Your task to perform on an android device: Find coffee shops on Maps Image 0: 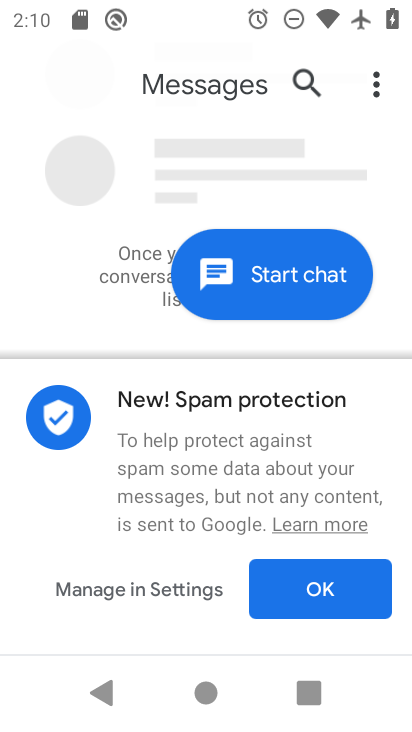
Step 0: press home button
Your task to perform on an android device: Find coffee shops on Maps Image 1: 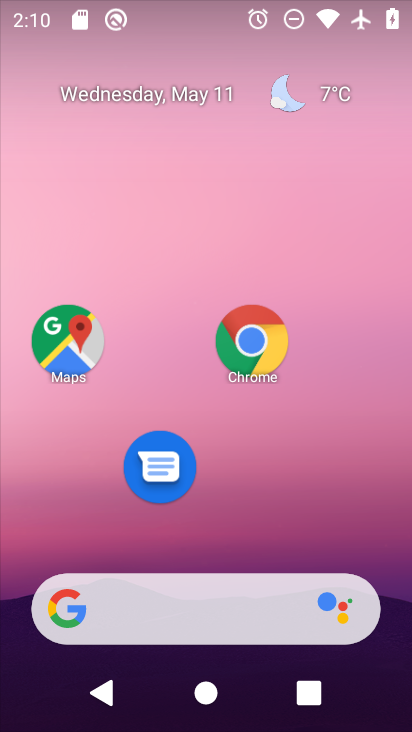
Step 1: click (77, 356)
Your task to perform on an android device: Find coffee shops on Maps Image 2: 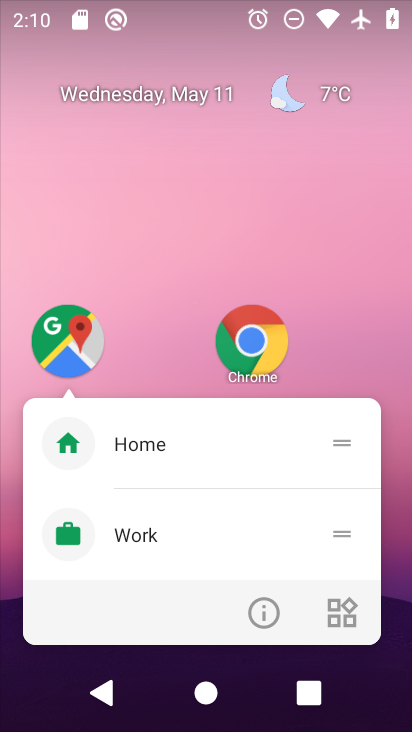
Step 2: click (73, 350)
Your task to perform on an android device: Find coffee shops on Maps Image 3: 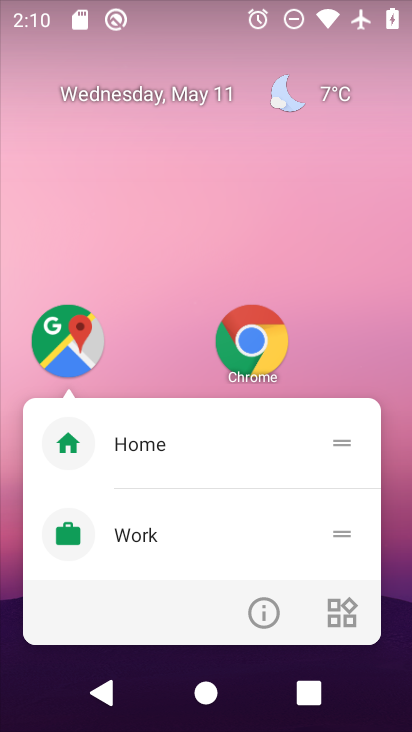
Step 3: click (66, 345)
Your task to perform on an android device: Find coffee shops on Maps Image 4: 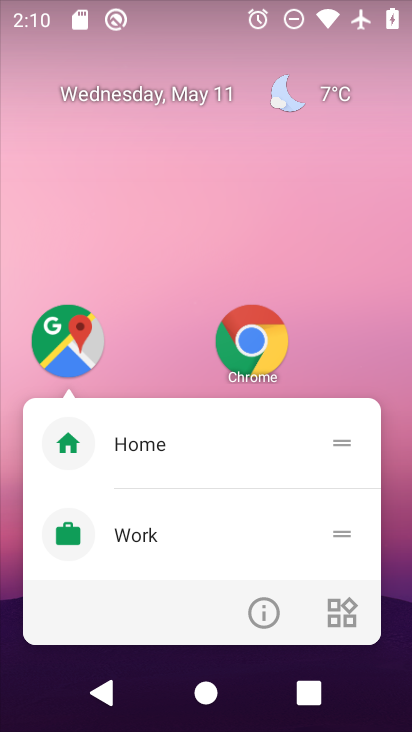
Step 4: click (59, 360)
Your task to perform on an android device: Find coffee shops on Maps Image 5: 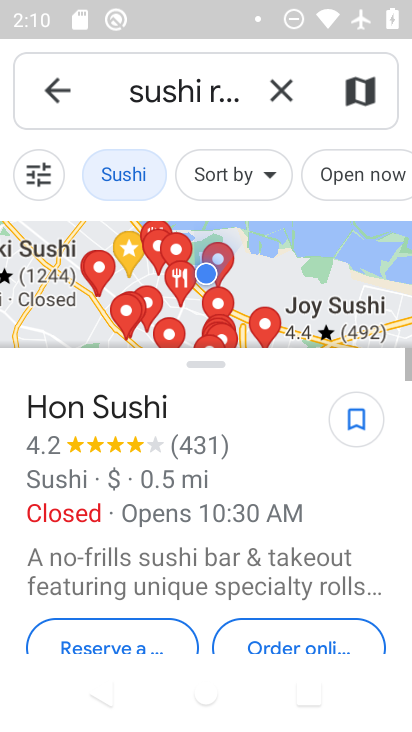
Step 5: click (280, 88)
Your task to perform on an android device: Find coffee shops on Maps Image 6: 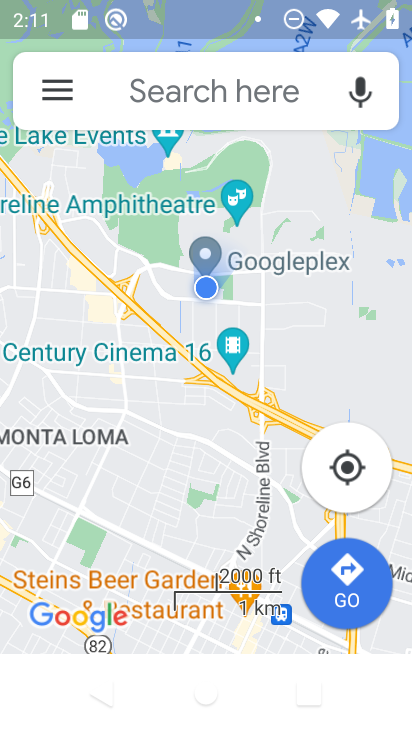
Step 6: click (201, 94)
Your task to perform on an android device: Find coffee shops on Maps Image 7: 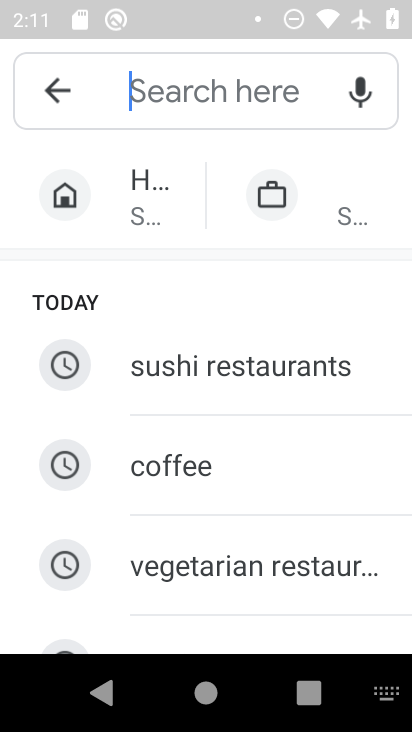
Step 7: click (179, 467)
Your task to perform on an android device: Find coffee shops on Maps Image 8: 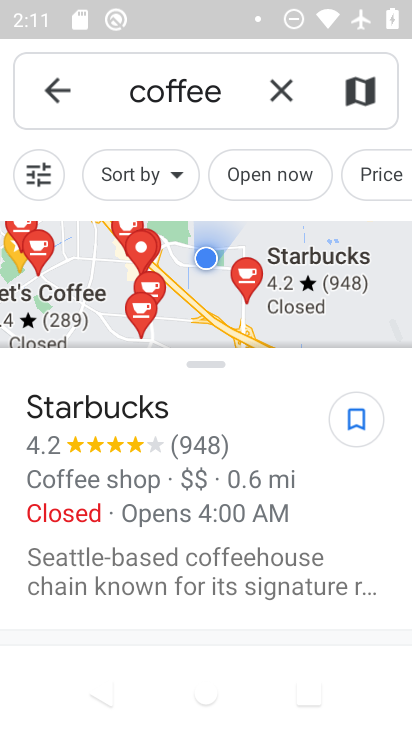
Step 8: task complete